Your task to perform on an android device: toggle notifications settings in the gmail app Image 0: 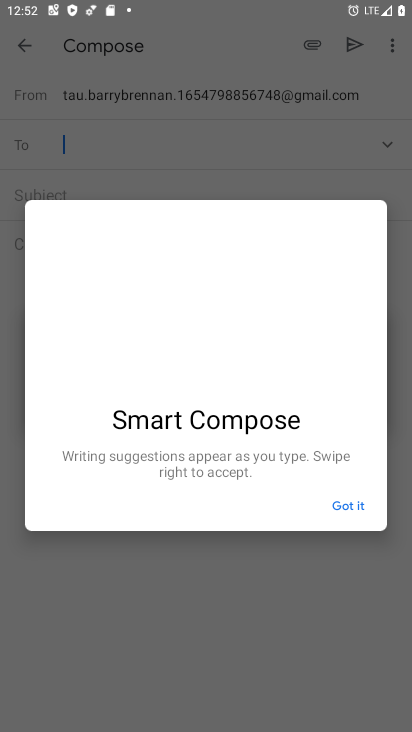
Step 0: press home button
Your task to perform on an android device: toggle notifications settings in the gmail app Image 1: 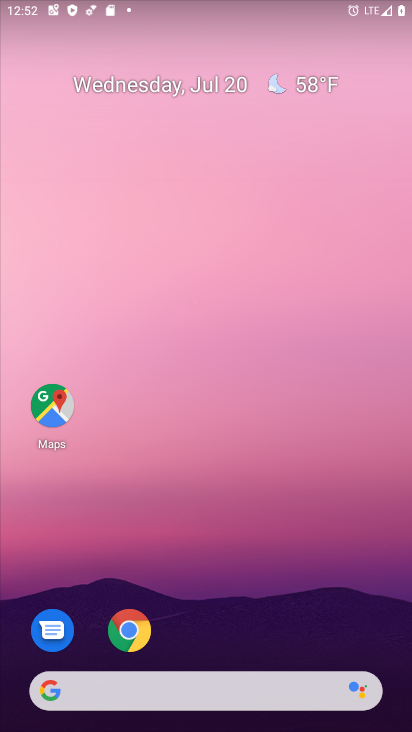
Step 1: drag from (273, 549) to (335, 67)
Your task to perform on an android device: toggle notifications settings in the gmail app Image 2: 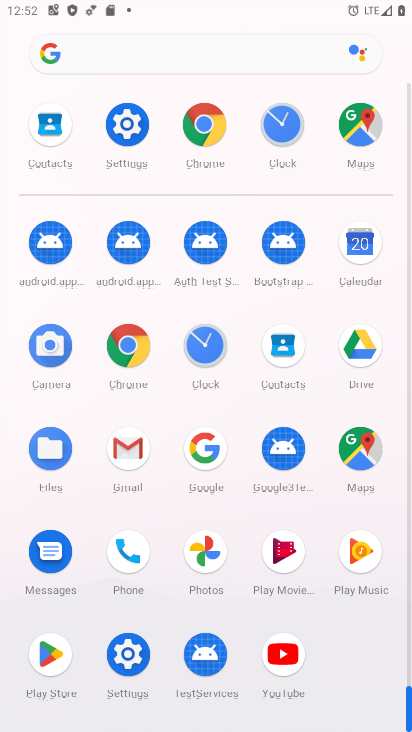
Step 2: click (133, 456)
Your task to perform on an android device: toggle notifications settings in the gmail app Image 3: 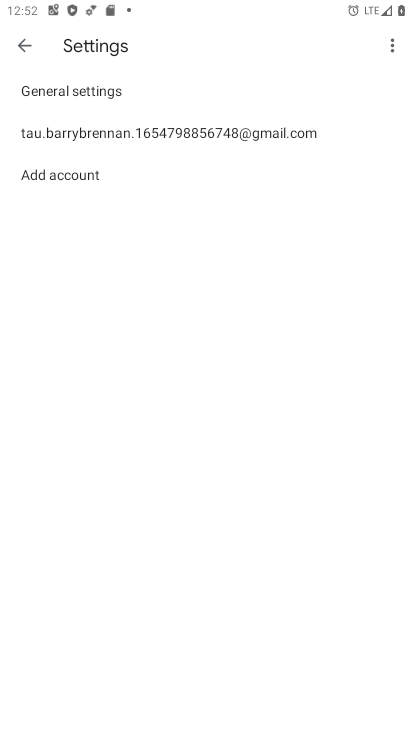
Step 3: click (23, 48)
Your task to perform on an android device: toggle notifications settings in the gmail app Image 4: 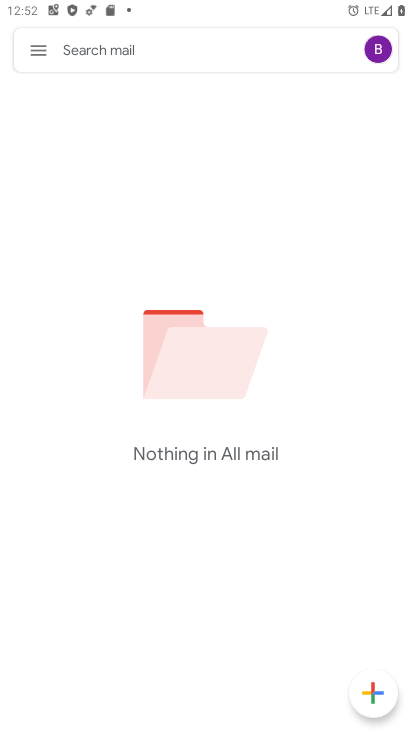
Step 4: click (27, 48)
Your task to perform on an android device: toggle notifications settings in the gmail app Image 5: 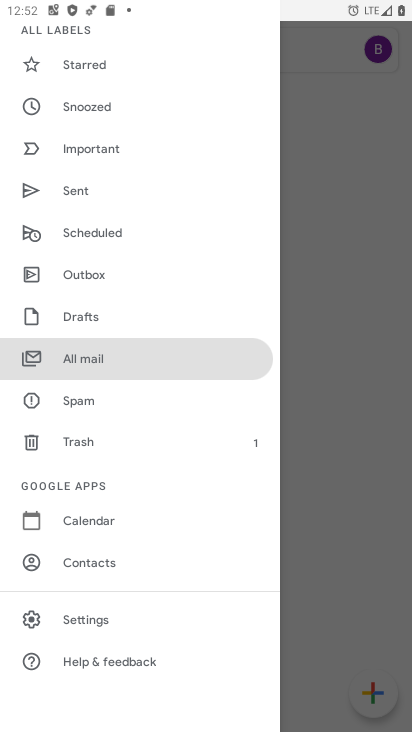
Step 5: click (118, 626)
Your task to perform on an android device: toggle notifications settings in the gmail app Image 6: 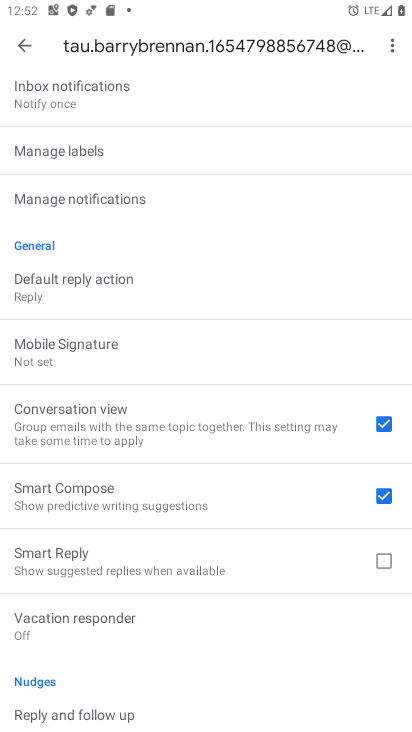
Step 6: drag from (159, 543) to (236, 252)
Your task to perform on an android device: toggle notifications settings in the gmail app Image 7: 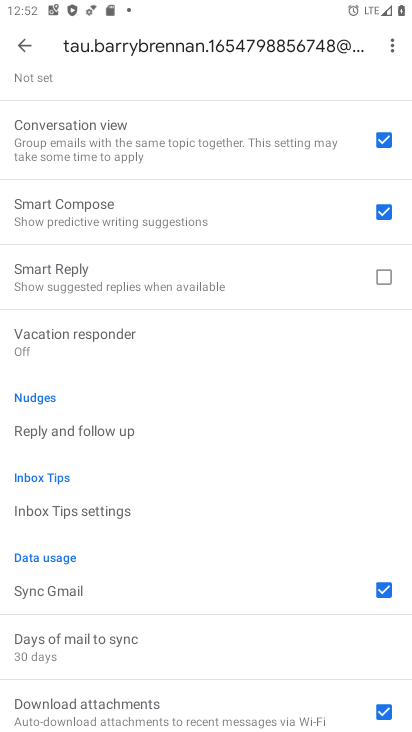
Step 7: drag from (139, 618) to (152, 320)
Your task to perform on an android device: toggle notifications settings in the gmail app Image 8: 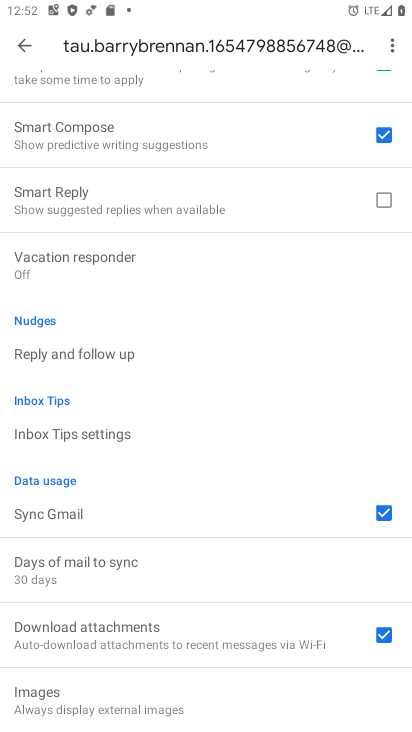
Step 8: click (17, 43)
Your task to perform on an android device: toggle notifications settings in the gmail app Image 9: 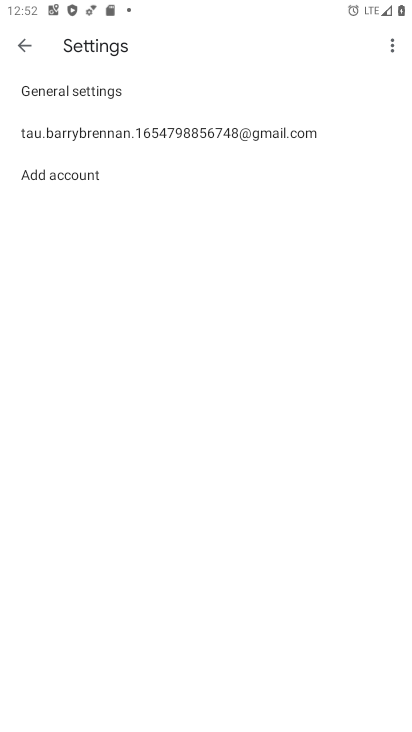
Step 9: click (87, 88)
Your task to perform on an android device: toggle notifications settings in the gmail app Image 10: 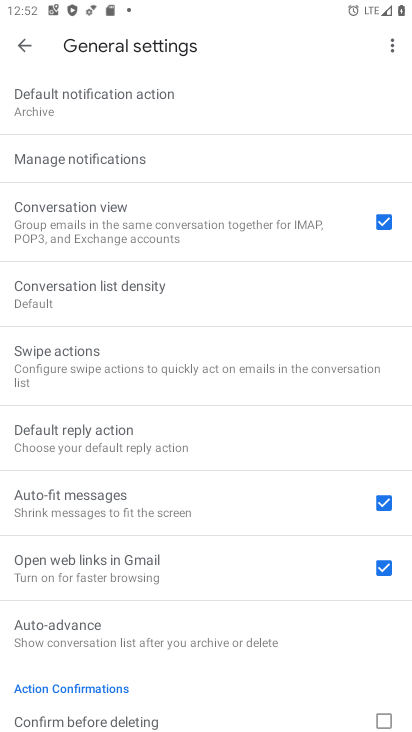
Step 10: click (113, 157)
Your task to perform on an android device: toggle notifications settings in the gmail app Image 11: 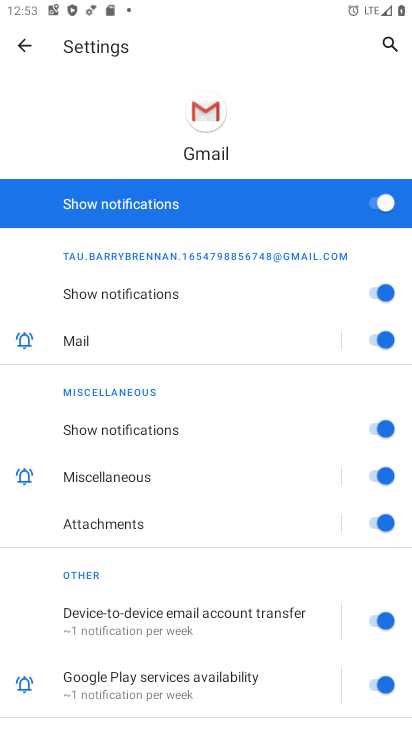
Step 11: click (149, 221)
Your task to perform on an android device: toggle notifications settings in the gmail app Image 12: 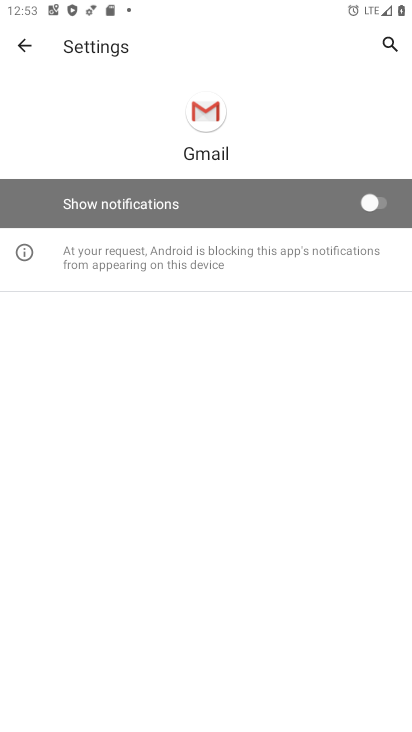
Step 12: task complete